Your task to perform on an android device: Open Chrome and go to settings Image 0: 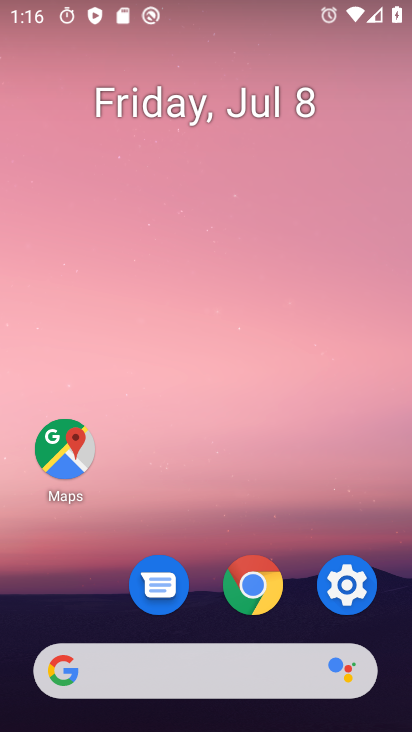
Step 0: click (347, 578)
Your task to perform on an android device: Open Chrome and go to settings Image 1: 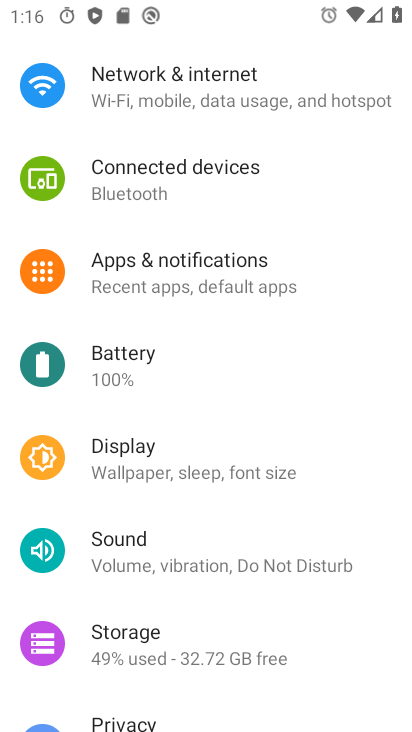
Step 1: press home button
Your task to perform on an android device: Open Chrome and go to settings Image 2: 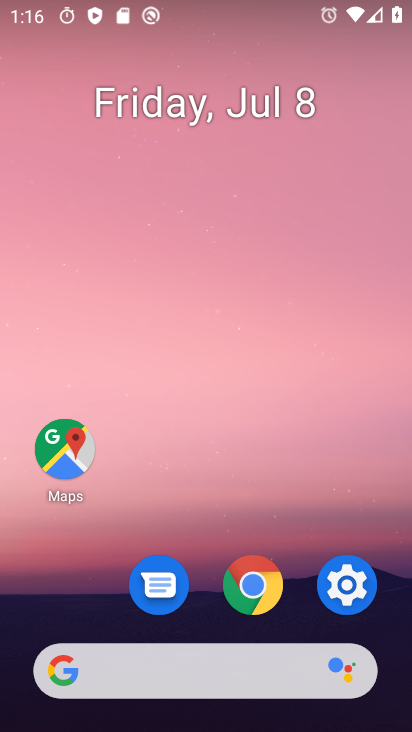
Step 2: click (254, 579)
Your task to perform on an android device: Open Chrome and go to settings Image 3: 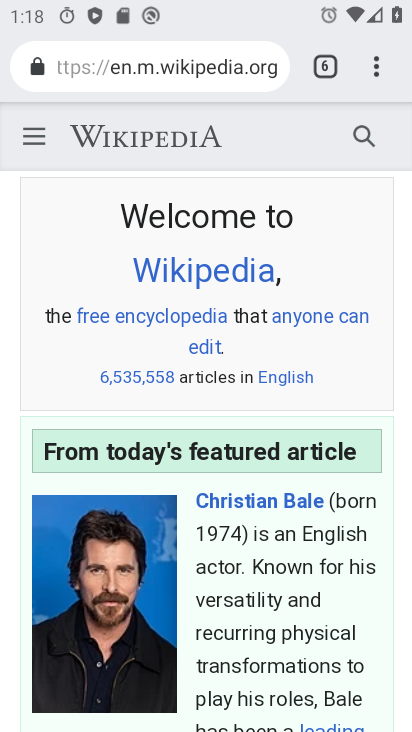
Step 3: click (363, 87)
Your task to perform on an android device: Open Chrome and go to settings Image 4: 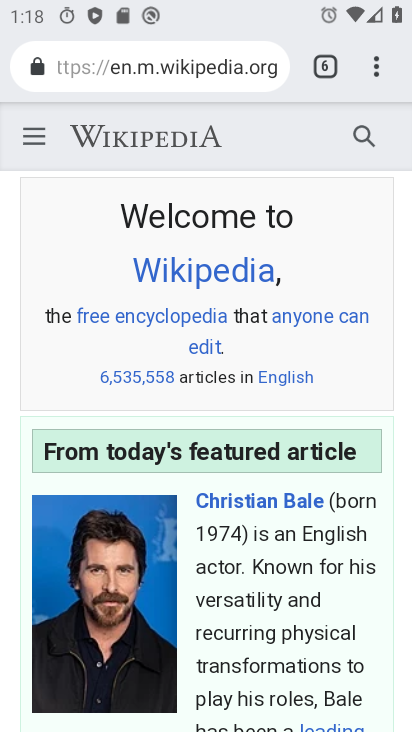
Step 4: click (370, 67)
Your task to perform on an android device: Open Chrome and go to settings Image 5: 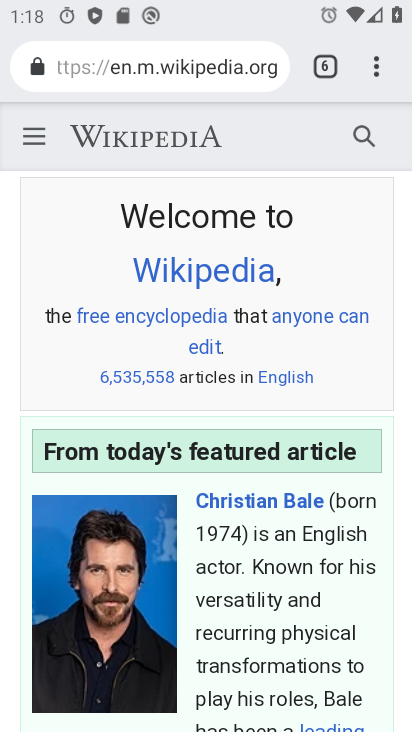
Step 5: click (378, 66)
Your task to perform on an android device: Open Chrome and go to settings Image 6: 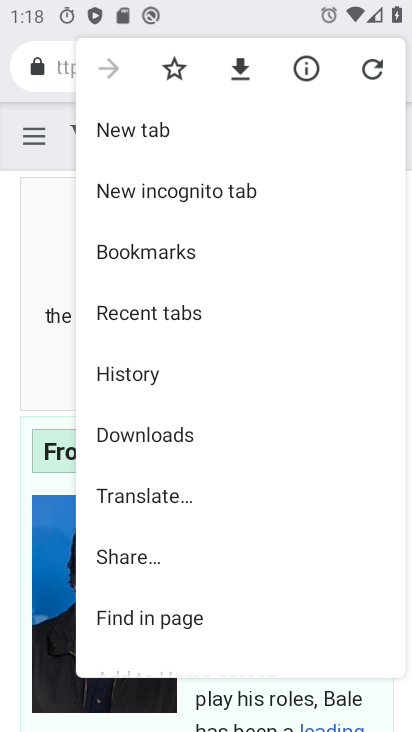
Step 6: drag from (211, 449) to (193, 276)
Your task to perform on an android device: Open Chrome and go to settings Image 7: 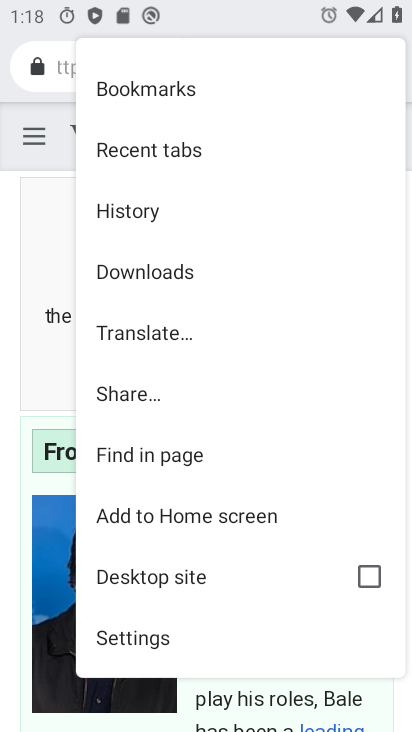
Step 7: click (132, 623)
Your task to perform on an android device: Open Chrome and go to settings Image 8: 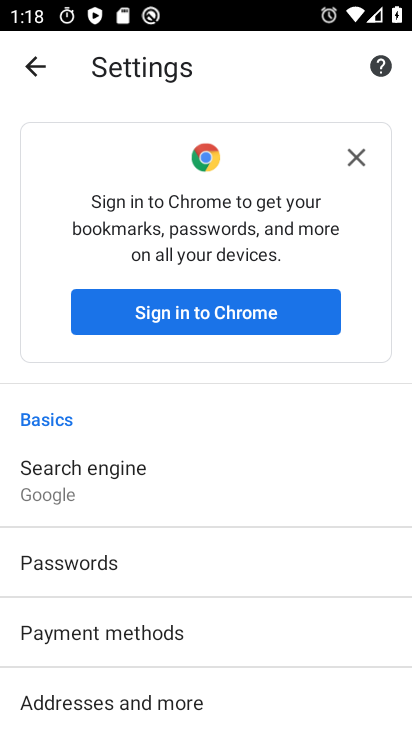
Step 8: task complete